Your task to perform on an android device: Show me recent news Image 0: 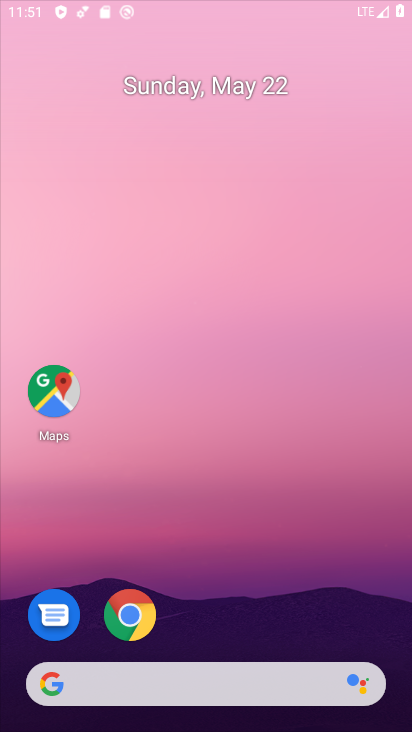
Step 0: drag from (251, 129) to (259, 32)
Your task to perform on an android device: Show me recent news Image 1: 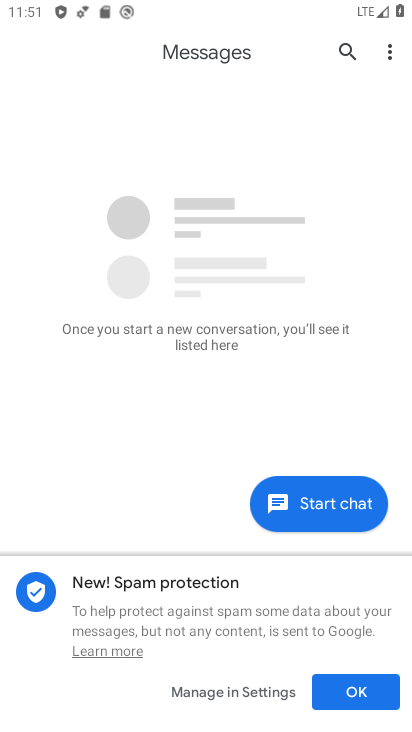
Step 1: press back button
Your task to perform on an android device: Show me recent news Image 2: 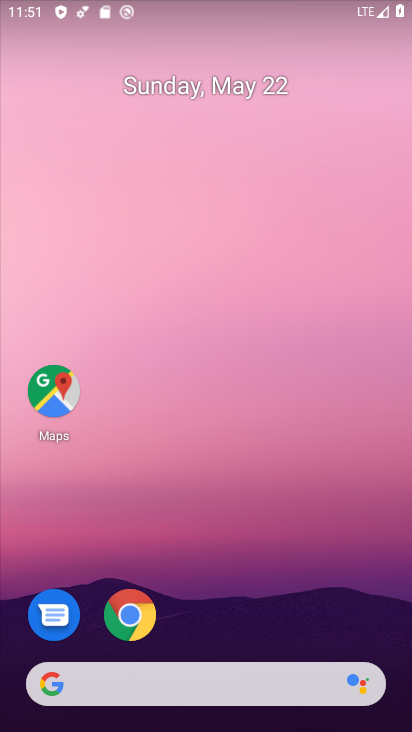
Step 2: click (136, 690)
Your task to perform on an android device: Show me recent news Image 3: 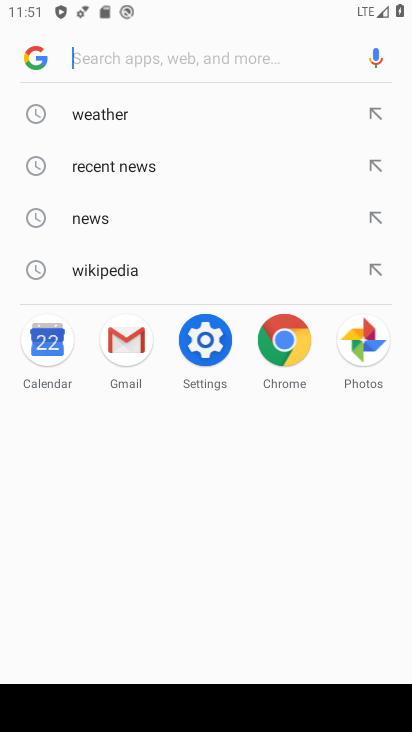
Step 3: click (140, 160)
Your task to perform on an android device: Show me recent news Image 4: 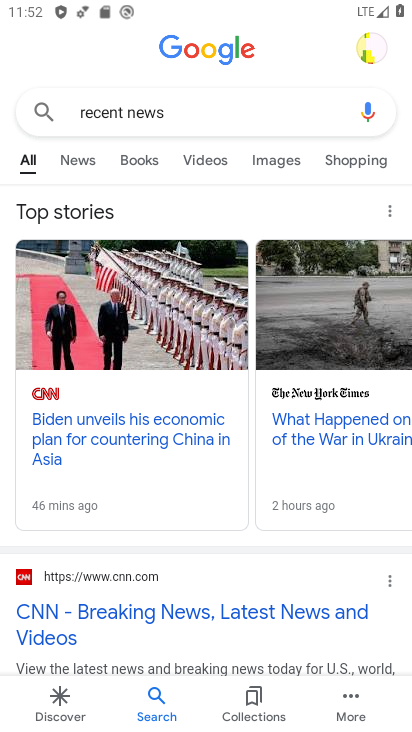
Step 4: task complete